Your task to perform on an android device: Add apple airpods to the cart on costco, then select checkout. Image 0: 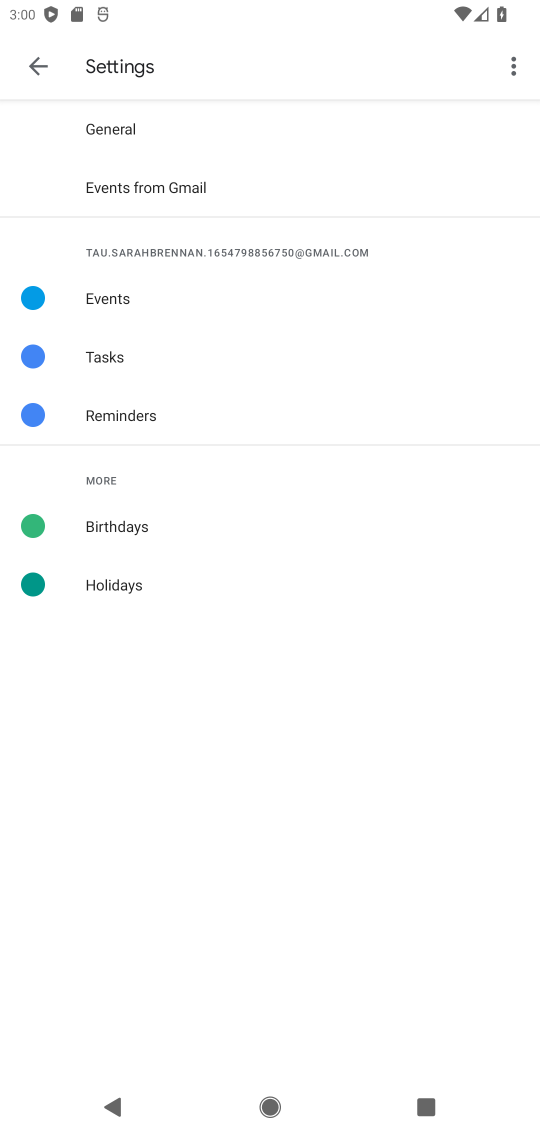
Step 0: press home button
Your task to perform on an android device: Add apple airpods to the cart on costco, then select checkout. Image 1: 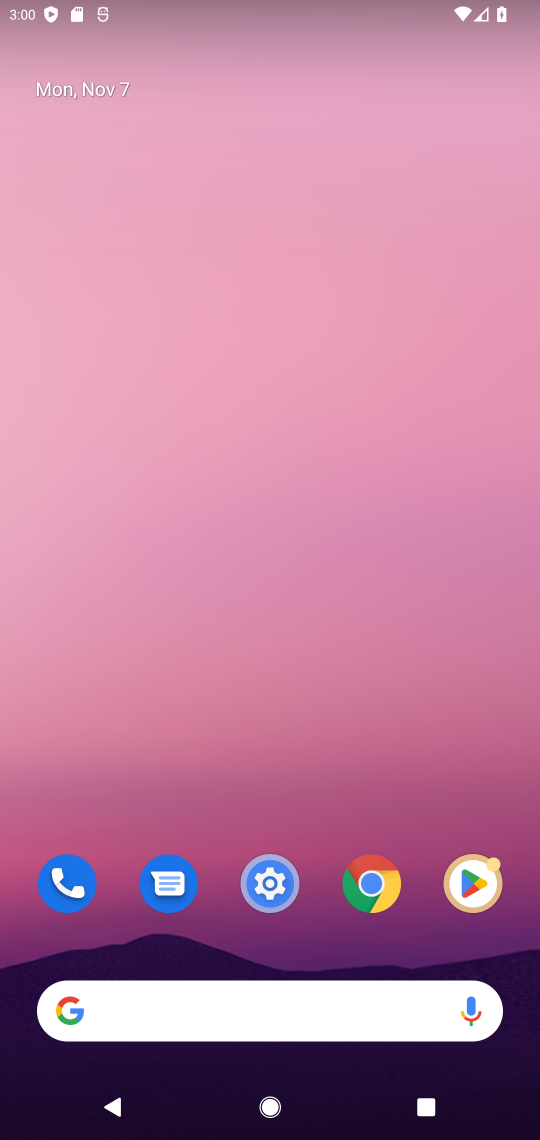
Step 1: click (364, 869)
Your task to perform on an android device: Add apple airpods to the cart on costco, then select checkout. Image 2: 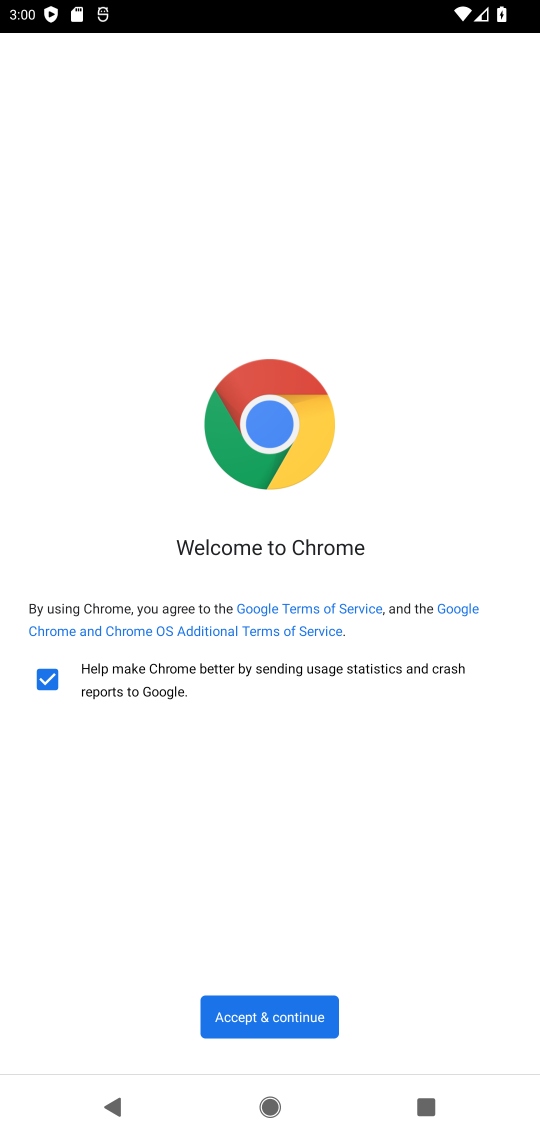
Step 2: click (281, 1012)
Your task to perform on an android device: Add apple airpods to the cart on costco, then select checkout. Image 3: 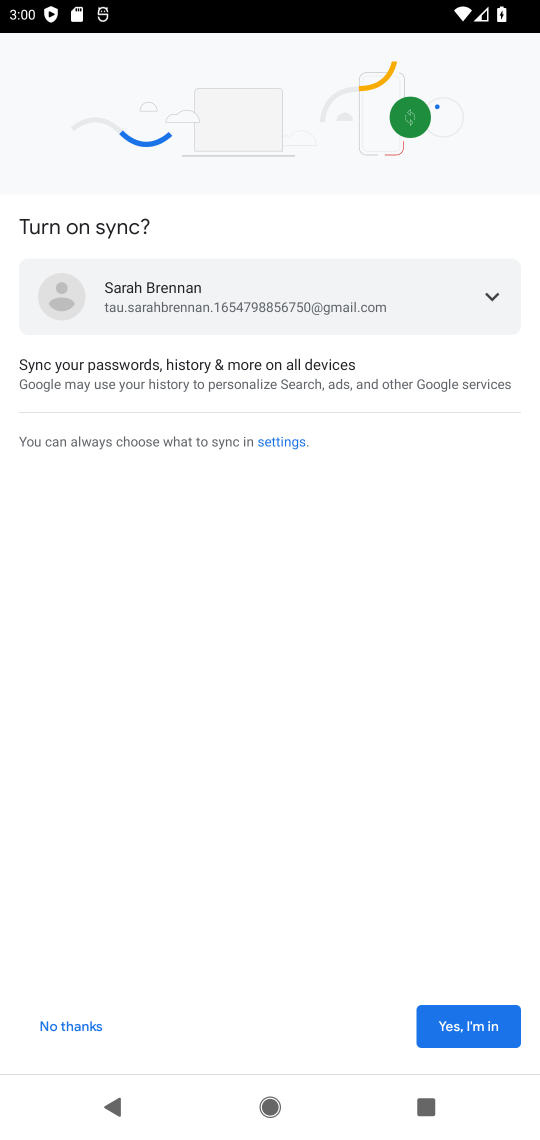
Step 3: click (473, 1018)
Your task to perform on an android device: Add apple airpods to the cart on costco, then select checkout. Image 4: 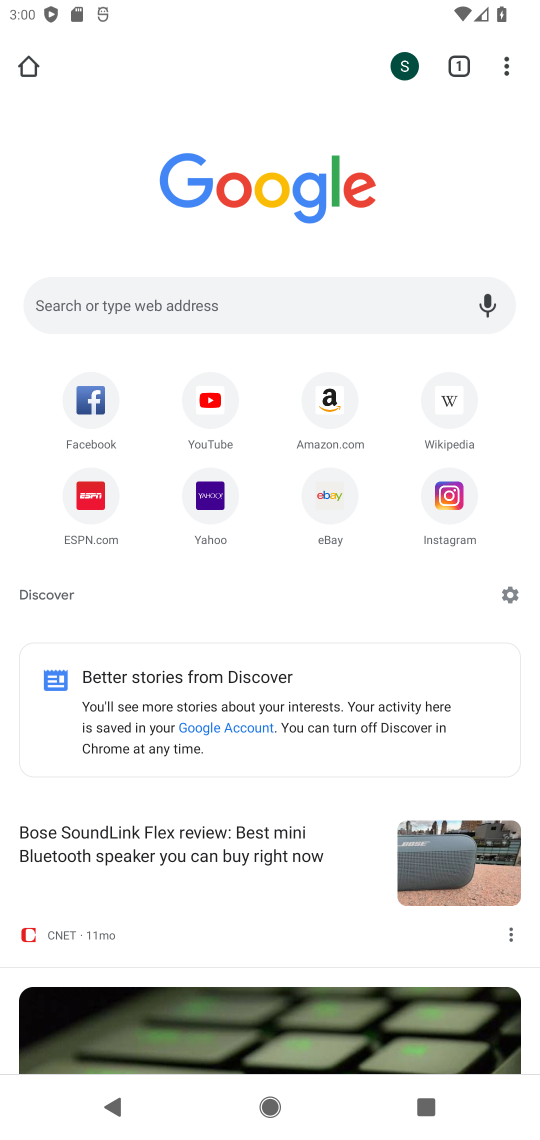
Step 4: click (100, 303)
Your task to perform on an android device: Add apple airpods to the cart on costco, then select checkout. Image 5: 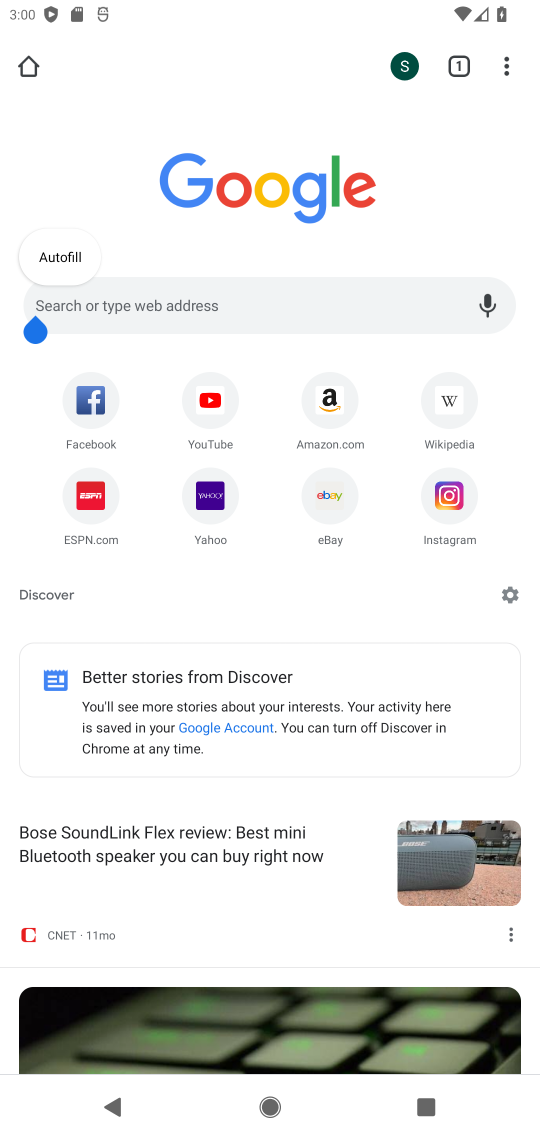
Step 5: click (100, 303)
Your task to perform on an android device: Add apple airpods to the cart on costco, then select checkout. Image 6: 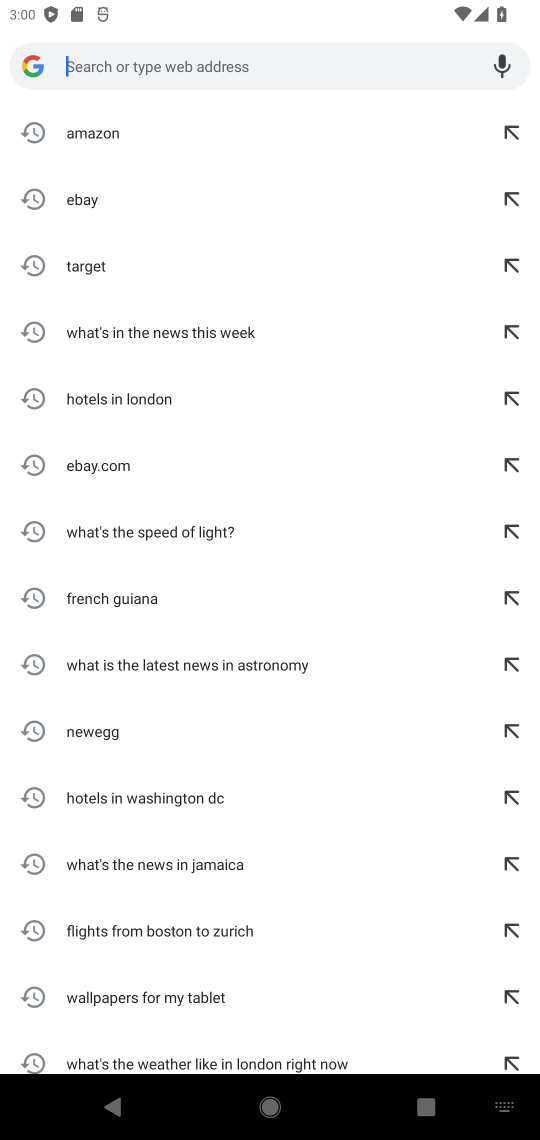
Step 6: type " costco"
Your task to perform on an android device: Add apple airpods to the cart on costco, then select checkout. Image 7: 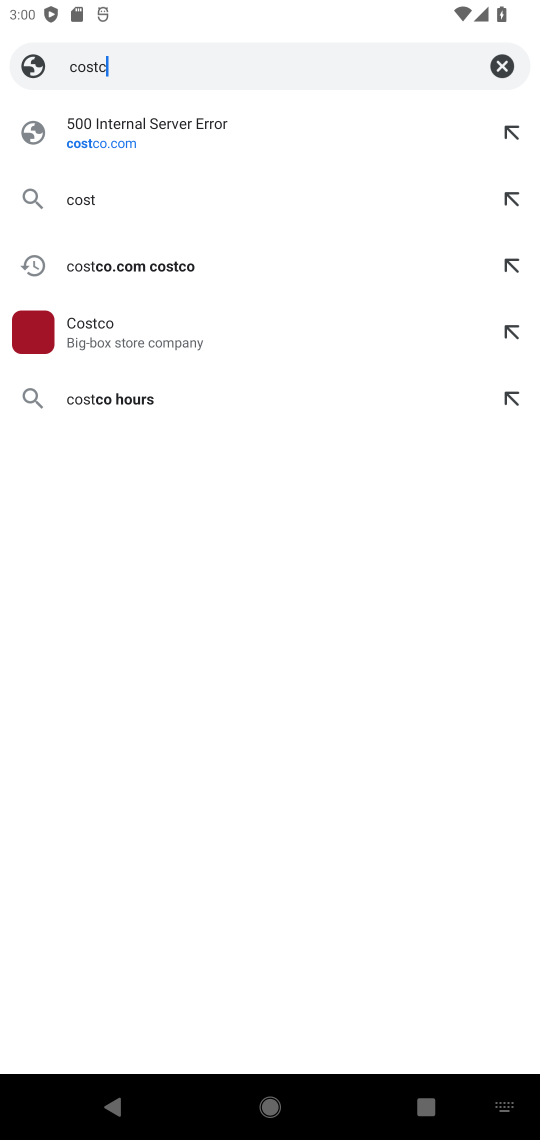
Step 7: press enter
Your task to perform on an android device: Add apple airpods to the cart on costco, then select checkout. Image 8: 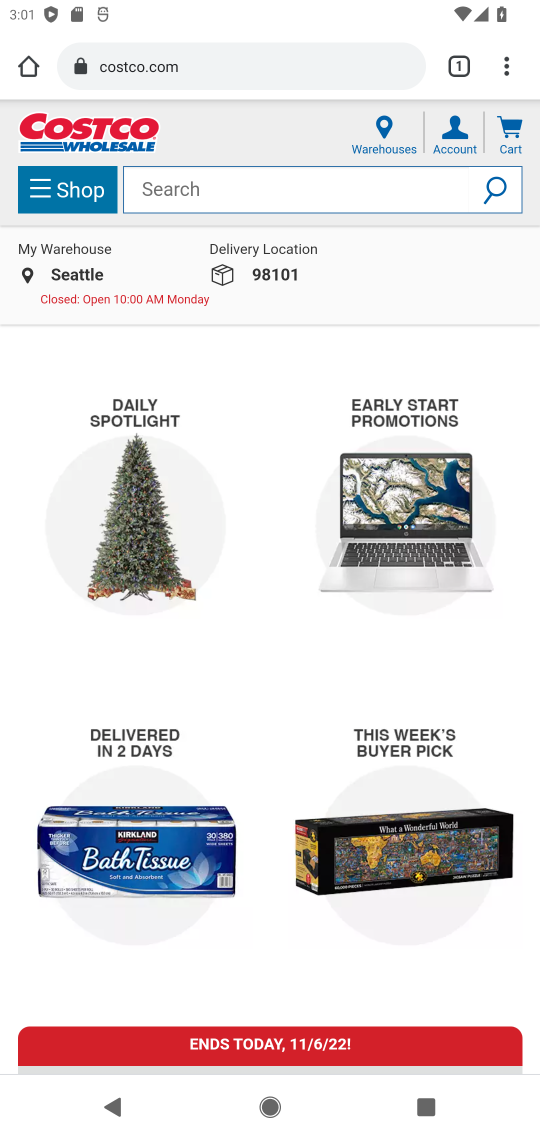
Step 8: click (175, 192)
Your task to perform on an android device: Add apple airpods to the cart on costco, then select checkout. Image 9: 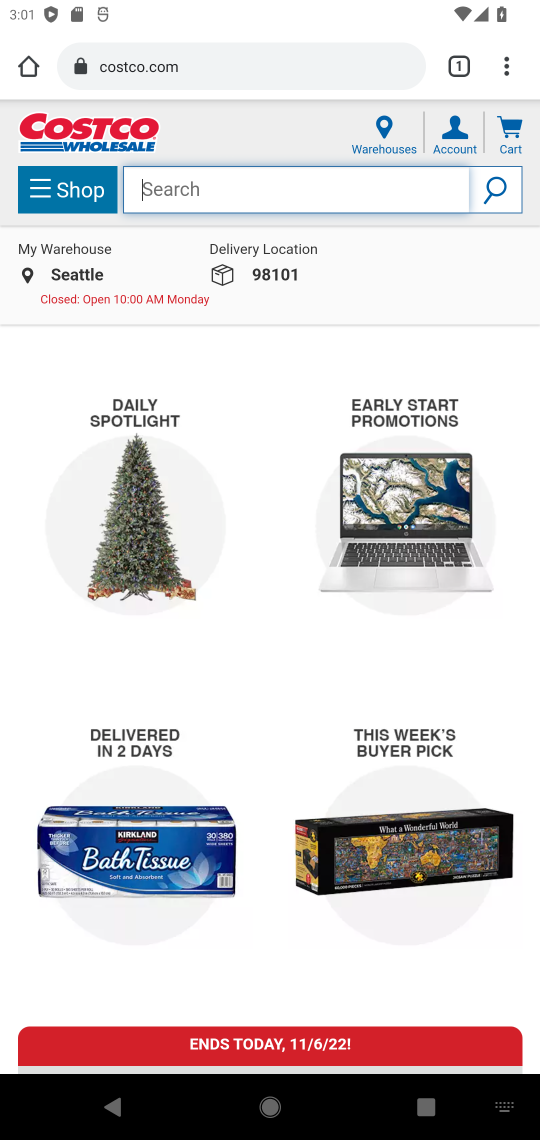
Step 9: type "apple airpods"
Your task to perform on an android device: Add apple airpods to the cart on costco, then select checkout. Image 10: 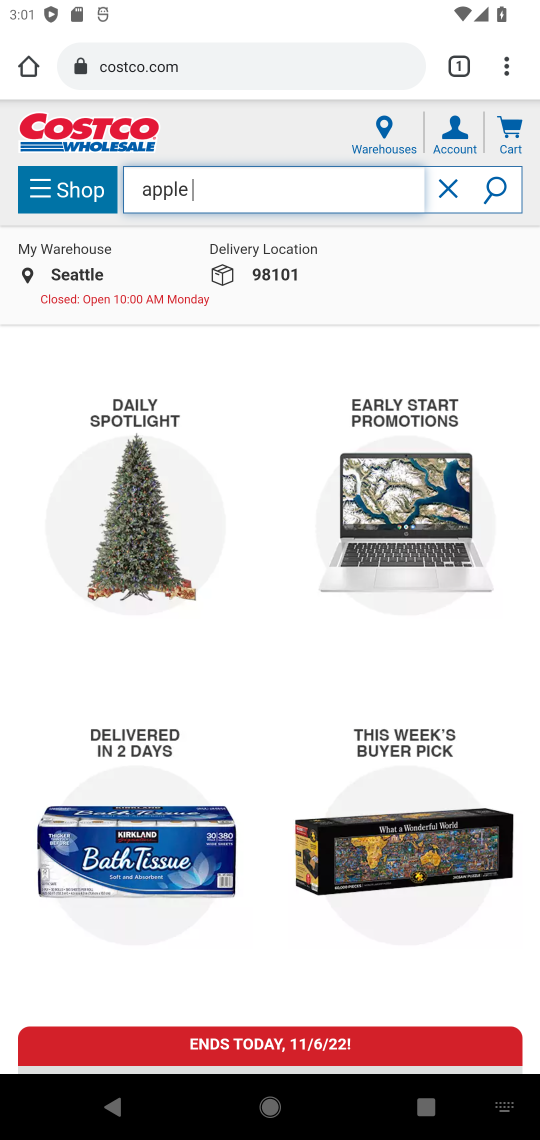
Step 10: press enter
Your task to perform on an android device: Add apple airpods to the cart on costco, then select checkout. Image 11: 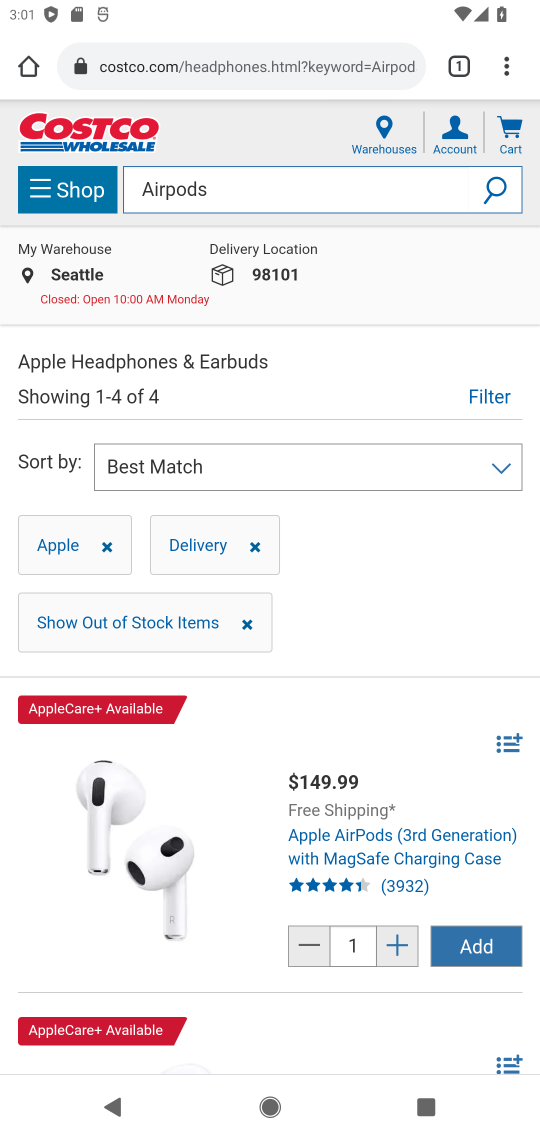
Step 11: drag from (336, 729) to (373, 437)
Your task to perform on an android device: Add apple airpods to the cart on costco, then select checkout. Image 12: 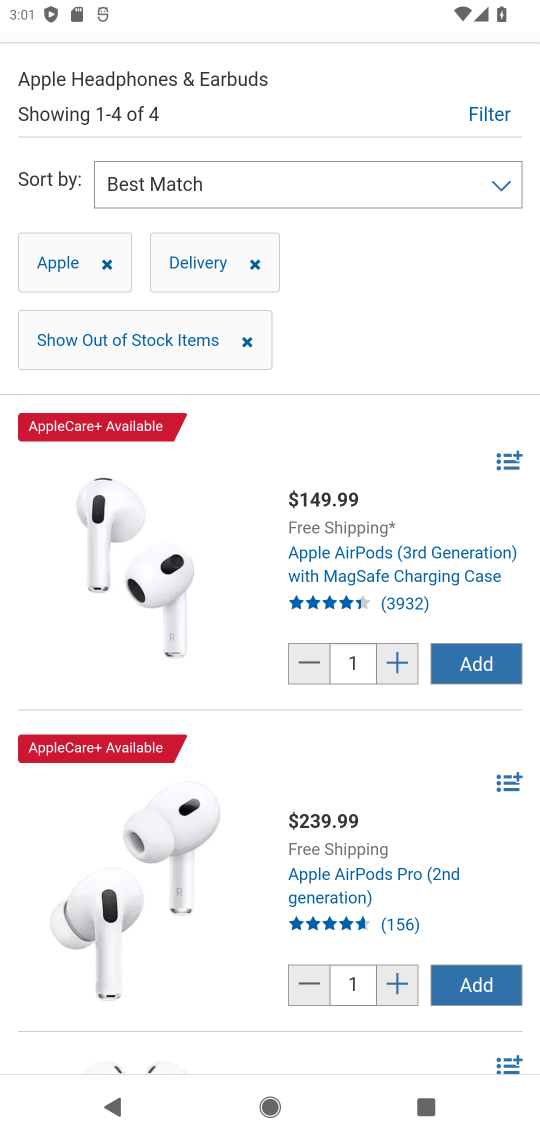
Step 12: click (483, 661)
Your task to perform on an android device: Add apple airpods to the cart on costco, then select checkout. Image 13: 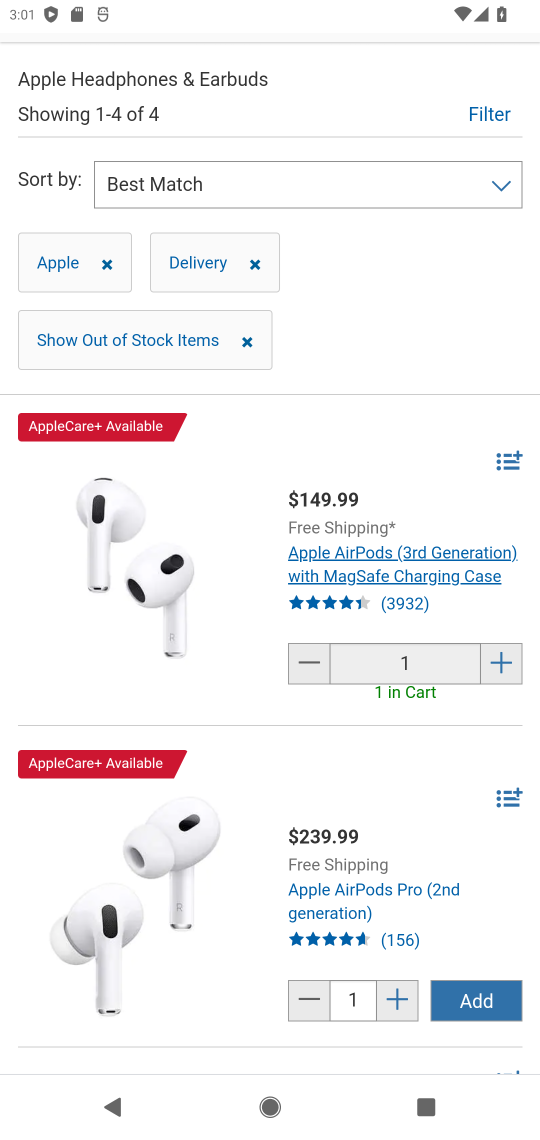
Step 13: drag from (379, 326) to (344, 626)
Your task to perform on an android device: Add apple airpods to the cart on costco, then select checkout. Image 14: 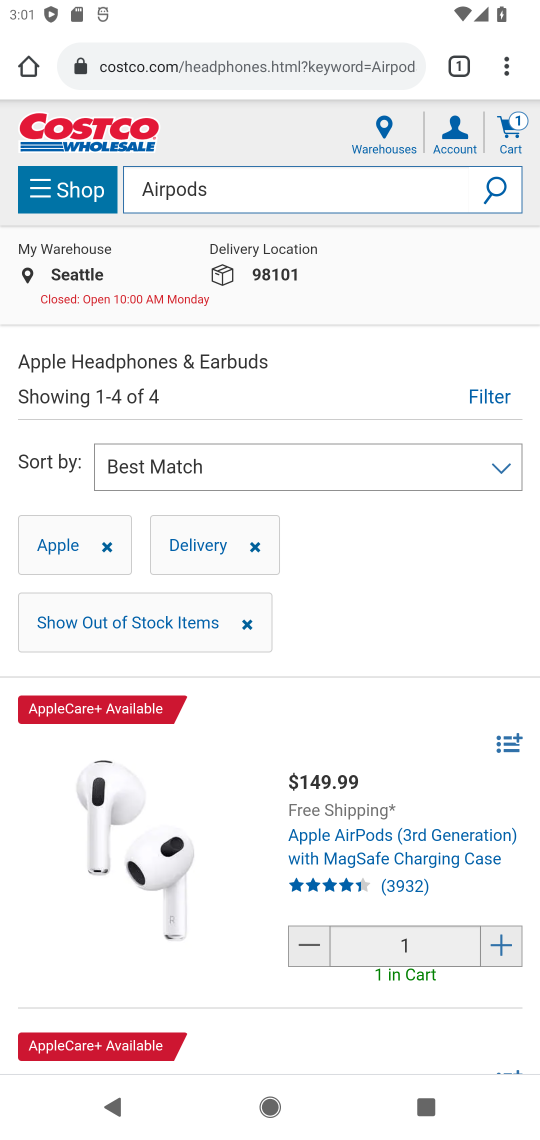
Step 14: click (510, 133)
Your task to perform on an android device: Add apple airpods to the cart on costco, then select checkout. Image 15: 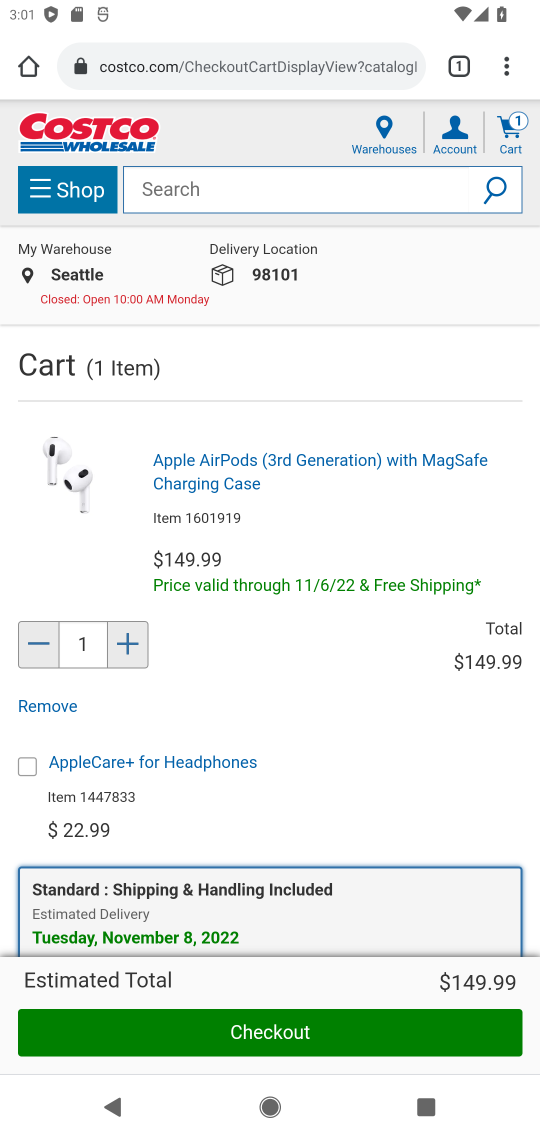
Step 15: click (285, 1027)
Your task to perform on an android device: Add apple airpods to the cart on costco, then select checkout. Image 16: 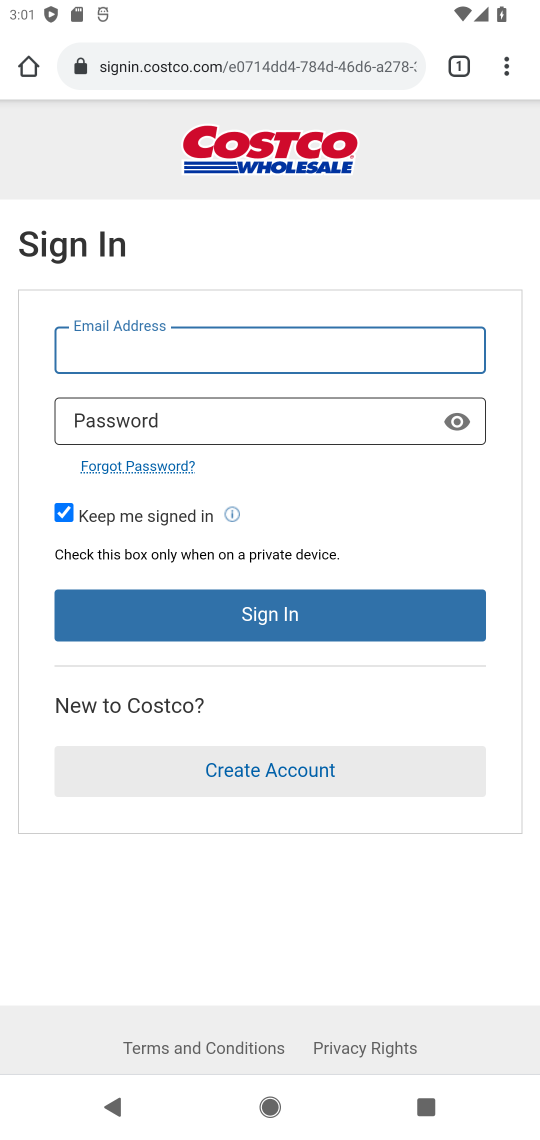
Step 16: task complete